Your task to perform on an android device: Show the shopping cart on bestbuy. Search for "dell alienware" on bestbuy, select the first entry, and add it to the cart. Image 0: 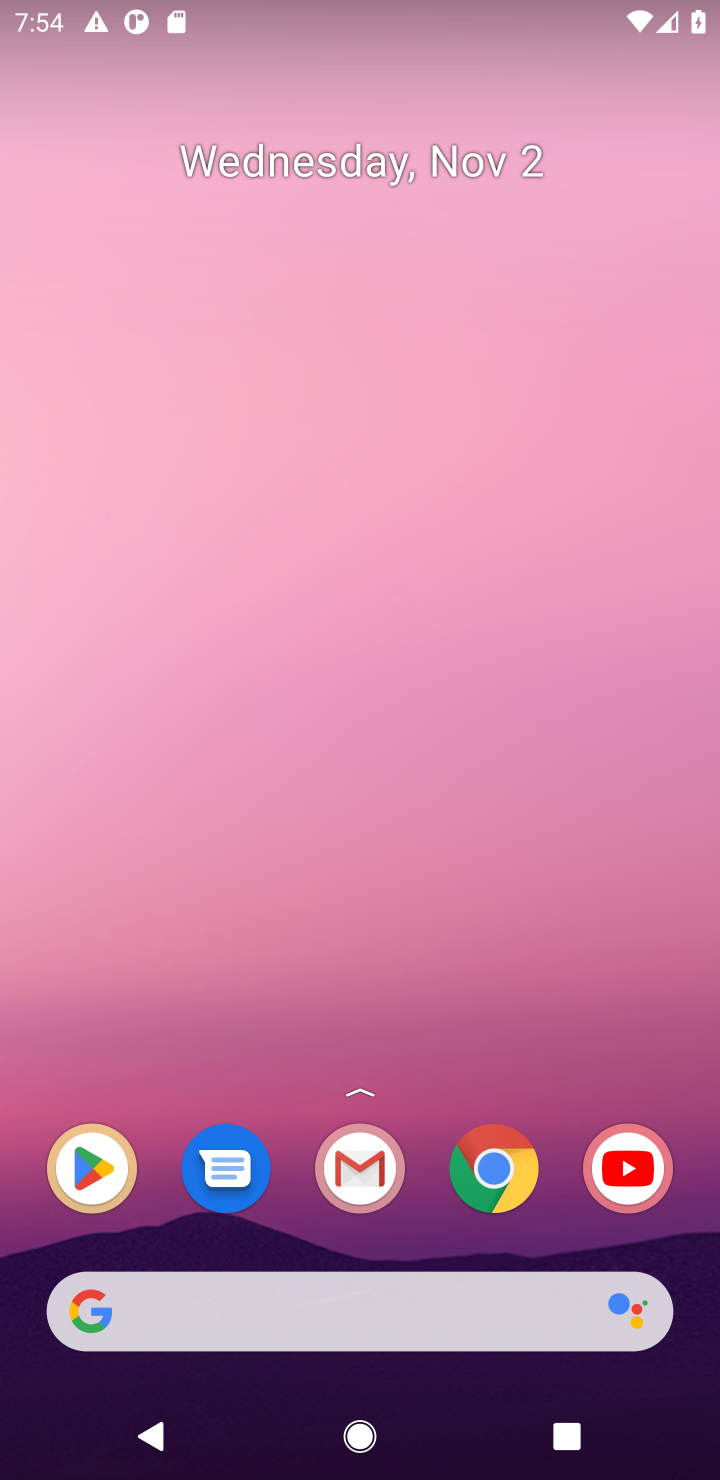
Step 0: click (498, 1167)
Your task to perform on an android device: Show the shopping cart on bestbuy. Search for "dell alienware" on bestbuy, select the first entry, and add it to the cart. Image 1: 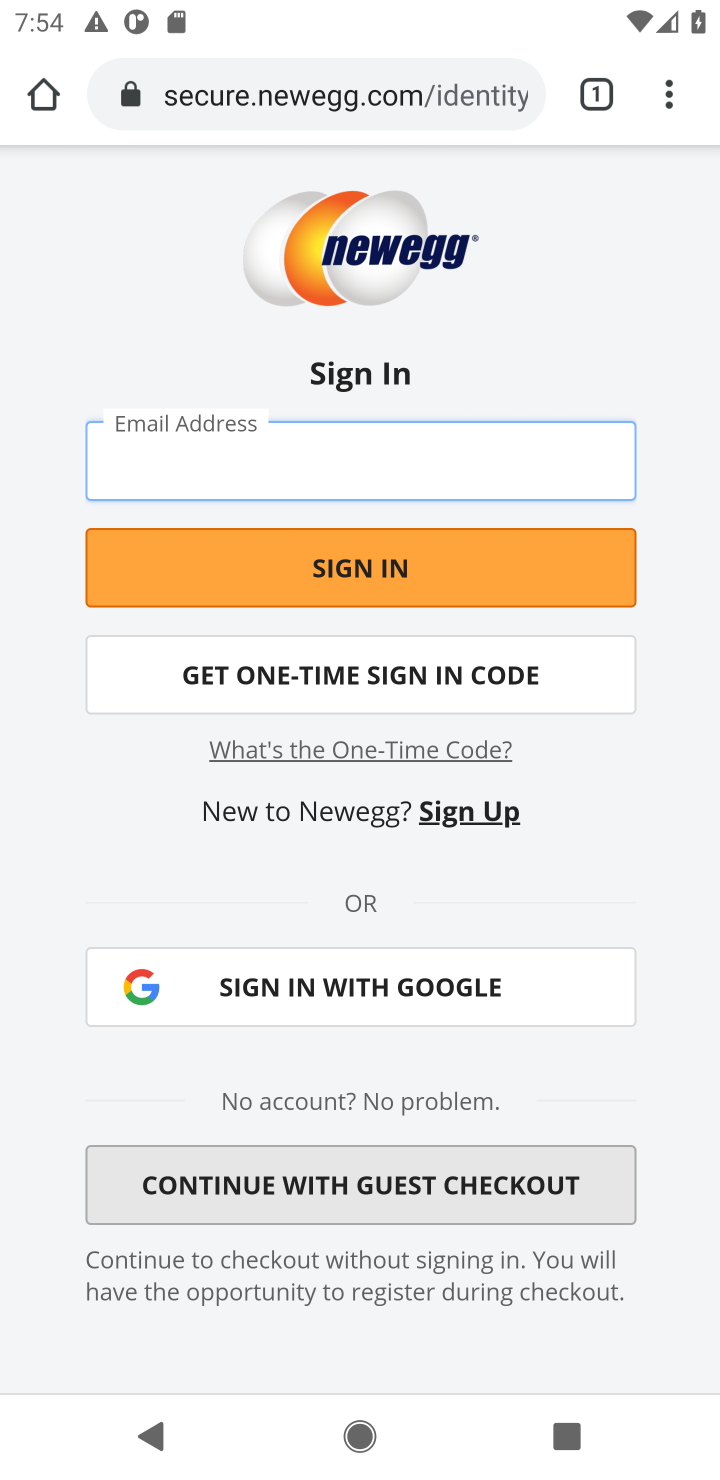
Step 1: click (450, 105)
Your task to perform on an android device: Show the shopping cart on bestbuy. Search for "dell alienware" on bestbuy, select the first entry, and add it to the cart. Image 2: 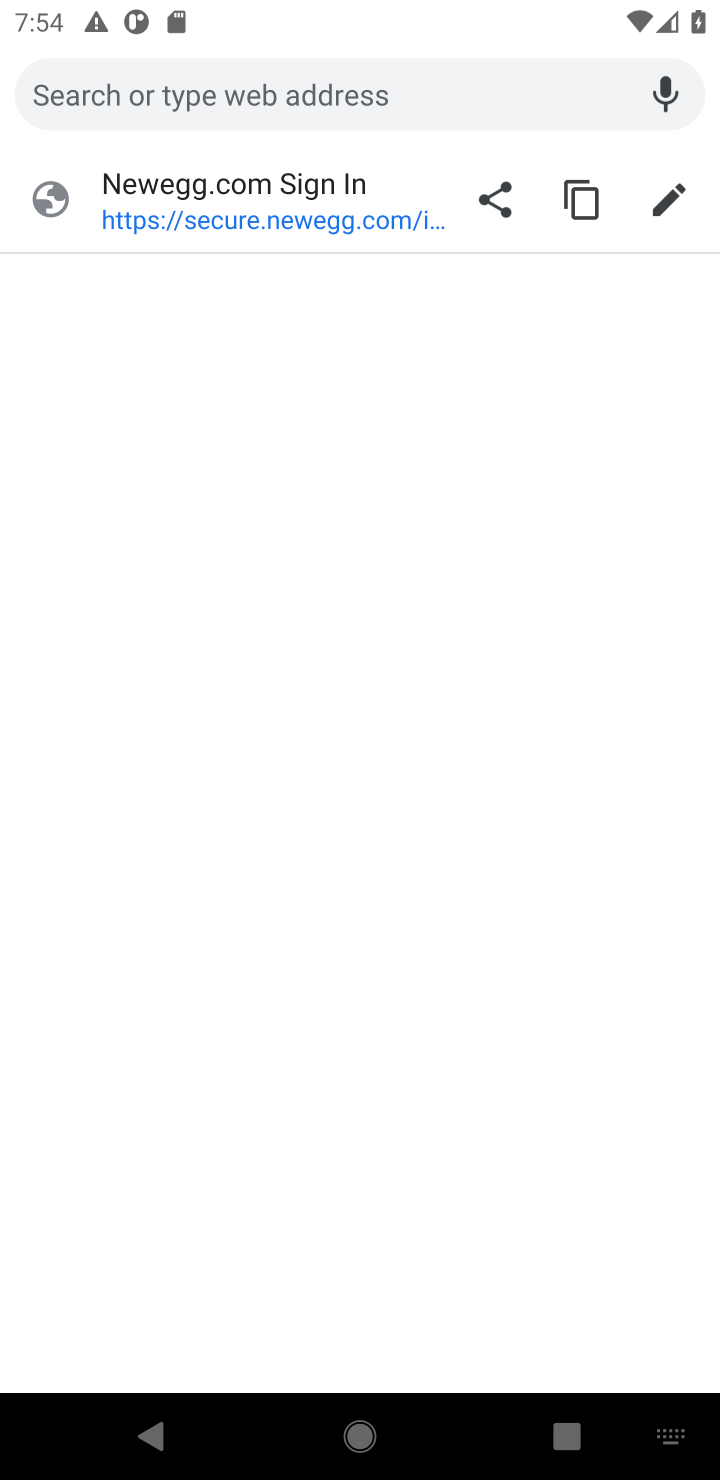
Step 2: type "bestbuy"
Your task to perform on an android device: Show the shopping cart on bestbuy. Search for "dell alienware" on bestbuy, select the first entry, and add it to the cart. Image 3: 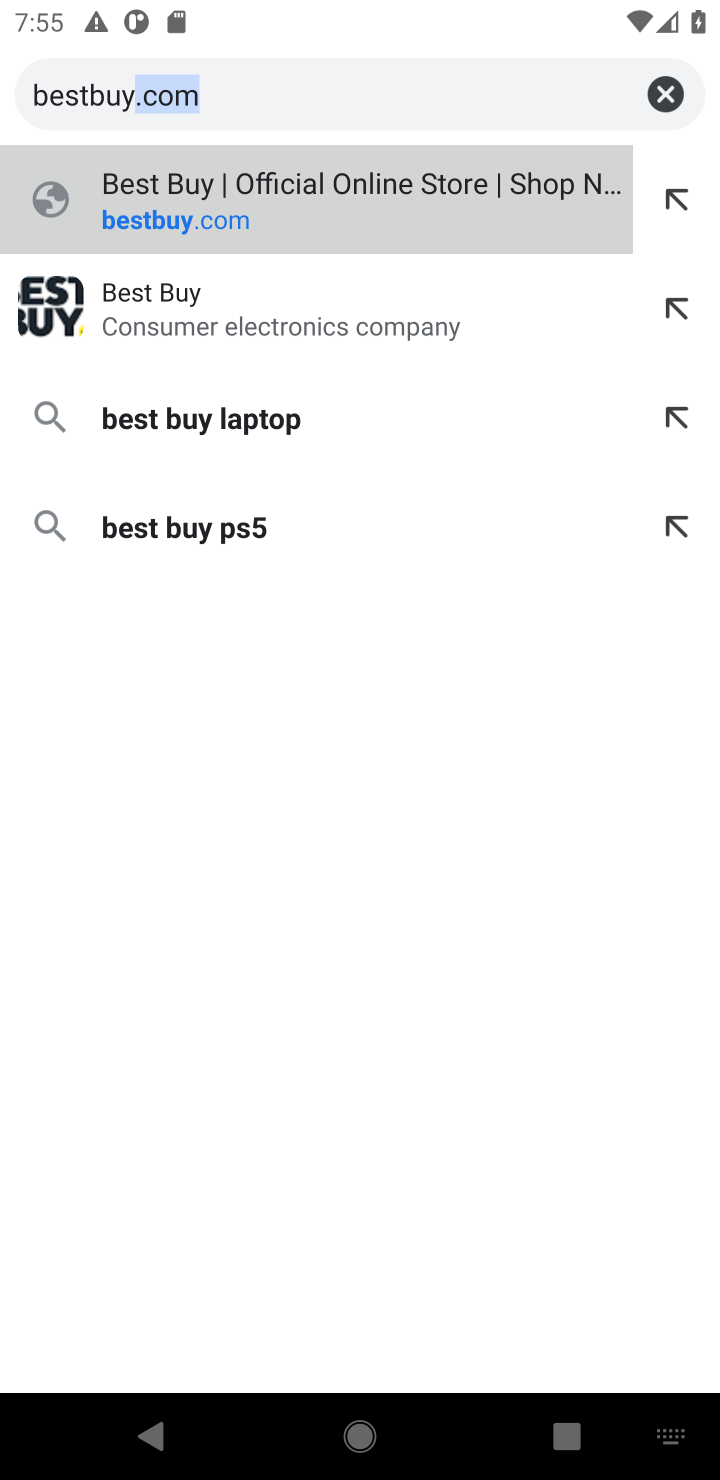
Step 3: click (175, 299)
Your task to perform on an android device: Show the shopping cart on bestbuy. Search for "dell alienware" on bestbuy, select the first entry, and add it to the cart. Image 4: 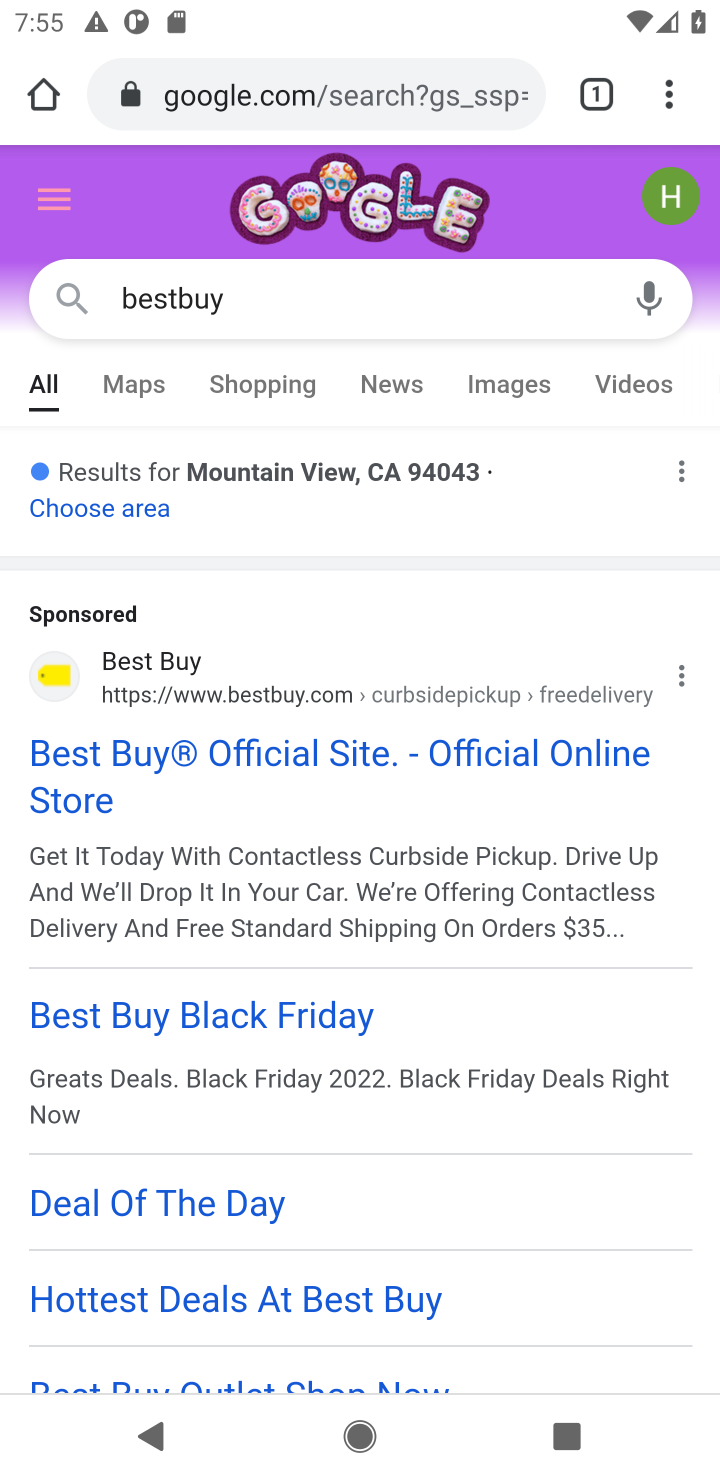
Step 4: drag from (307, 1139) to (387, 643)
Your task to perform on an android device: Show the shopping cart on bestbuy. Search for "dell alienware" on bestbuy, select the first entry, and add it to the cart. Image 5: 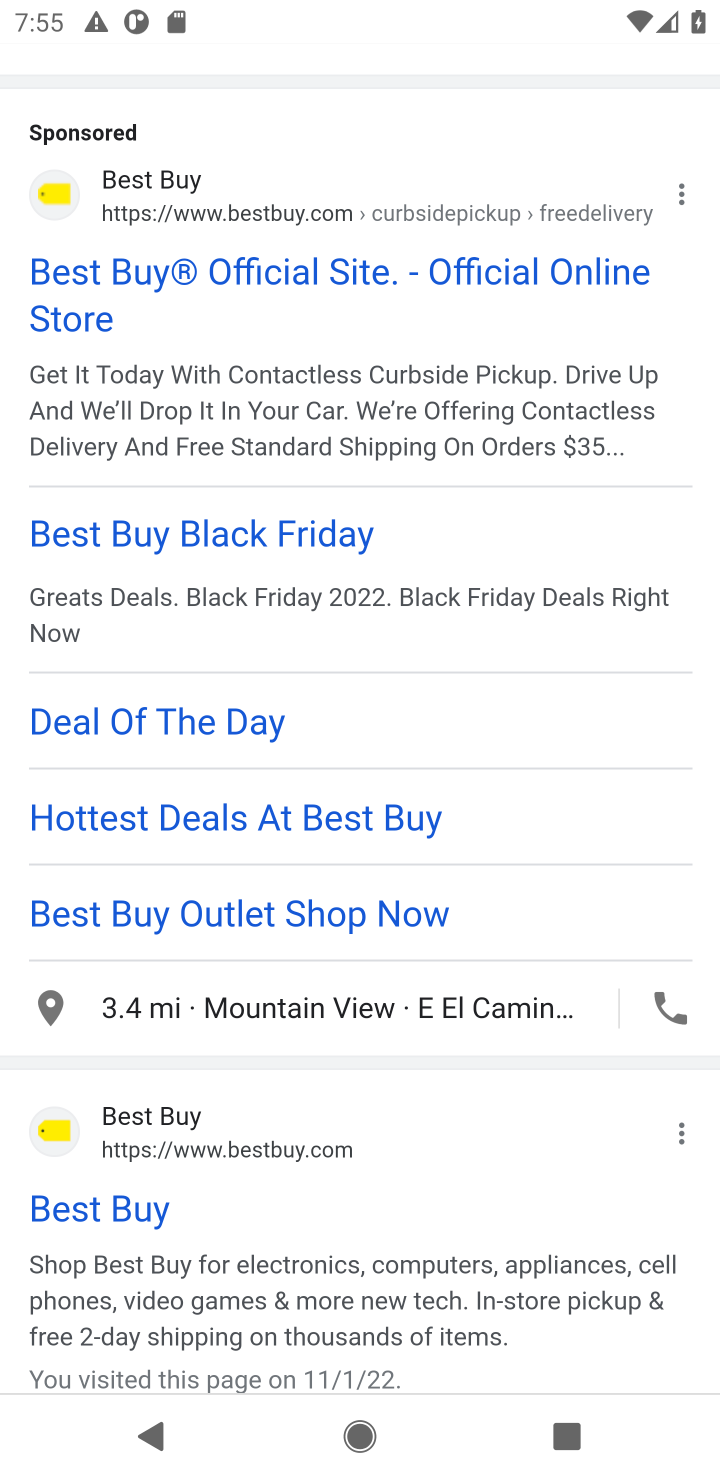
Step 5: click (167, 1208)
Your task to perform on an android device: Show the shopping cart on bestbuy. Search for "dell alienware" on bestbuy, select the first entry, and add it to the cart. Image 6: 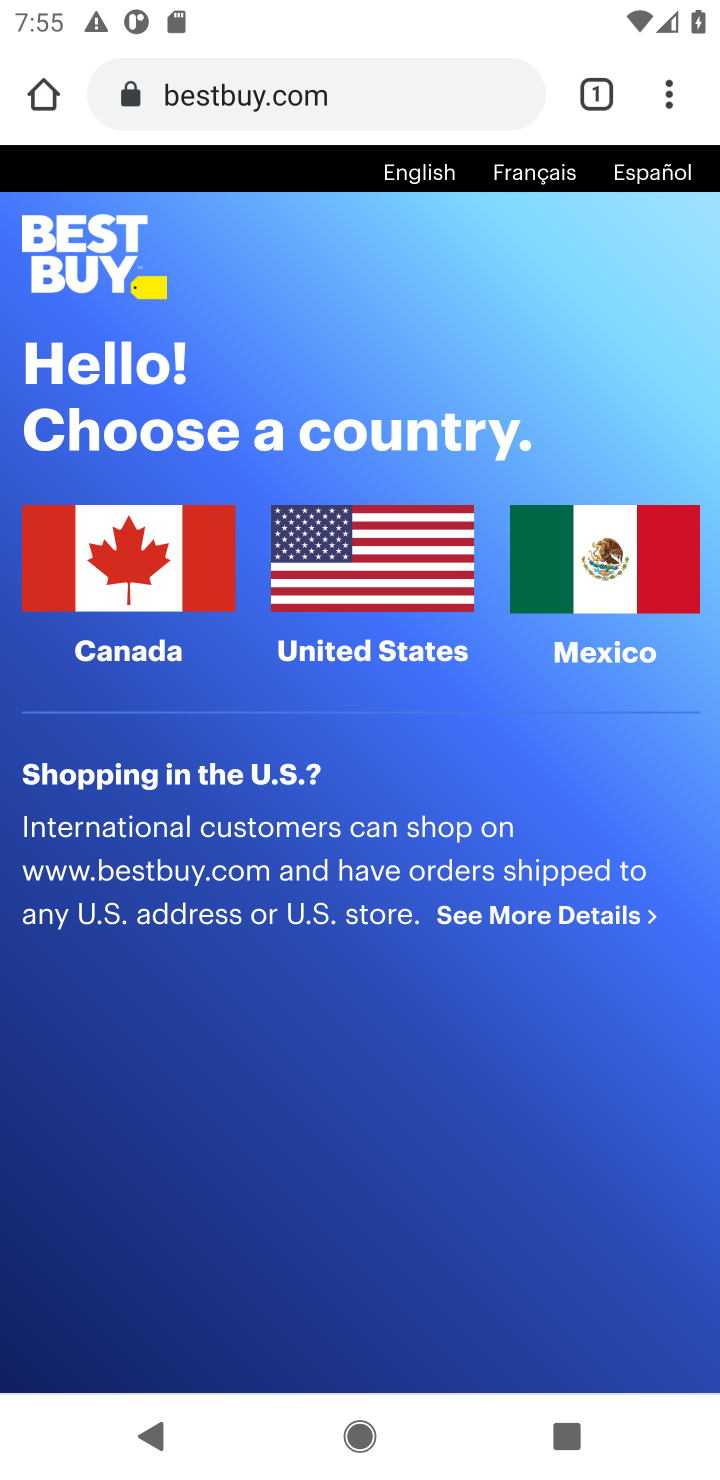
Step 6: click (354, 579)
Your task to perform on an android device: Show the shopping cart on bestbuy. Search for "dell alienware" on bestbuy, select the first entry, and add it to the cart. Image 7: 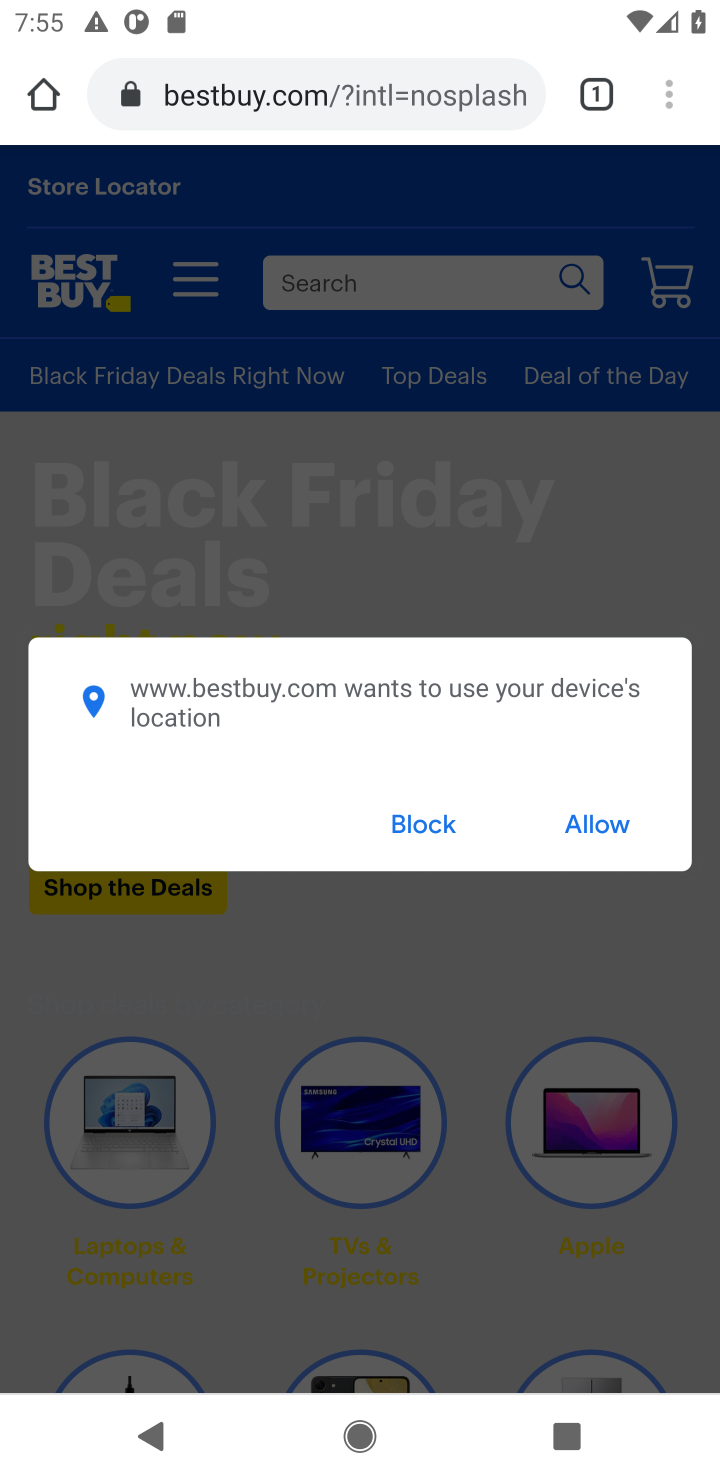
Step 7: click (589, 818)
Your task to perform on an android device: Show the shopping cart on bestbuy. Search for "dell alienware" on bestbuy, select the first entry, and add it to the cart. Image 8: 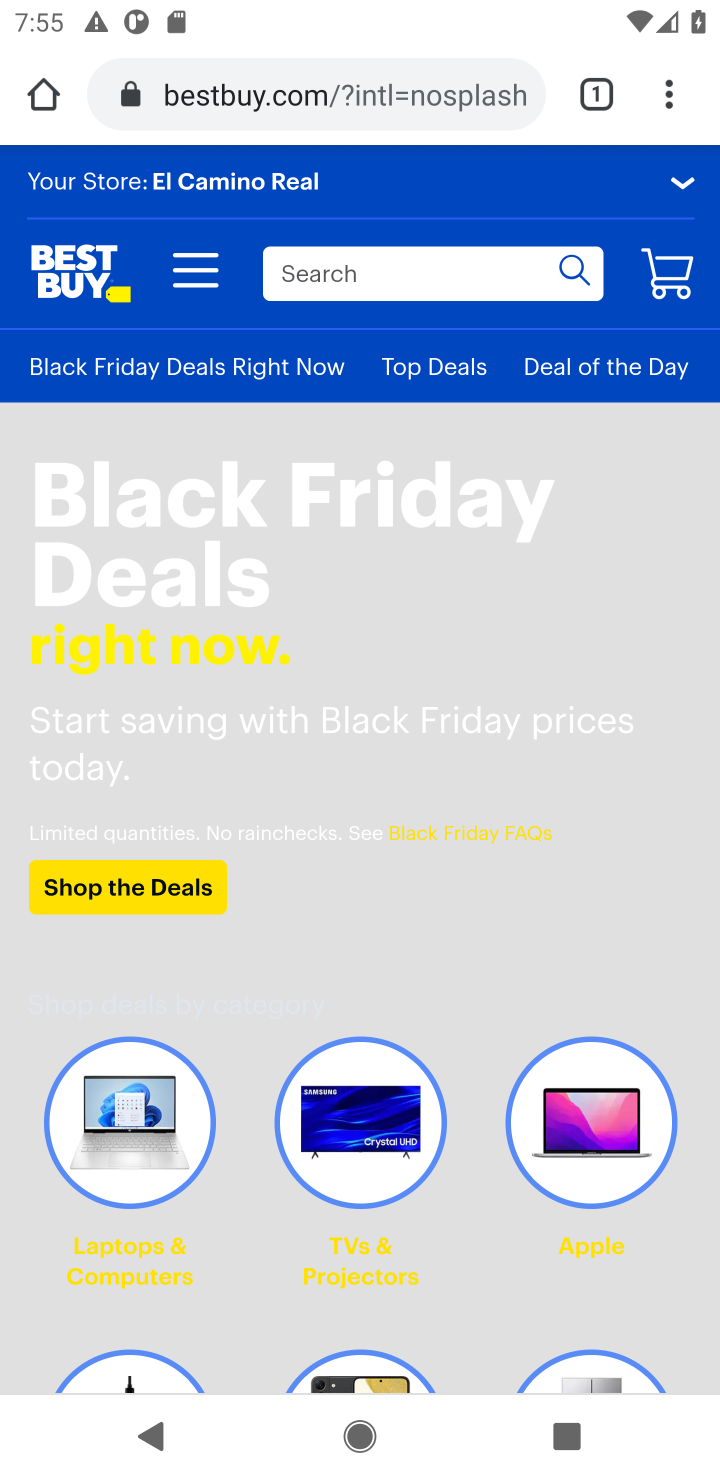
Step 8: click (668, 279)
Your task to perform on an android device: Show the shopping cart on bestbuy. Search for "dell alienware" on bestbuy, select the first entry, and add it to the cart. Image 9: 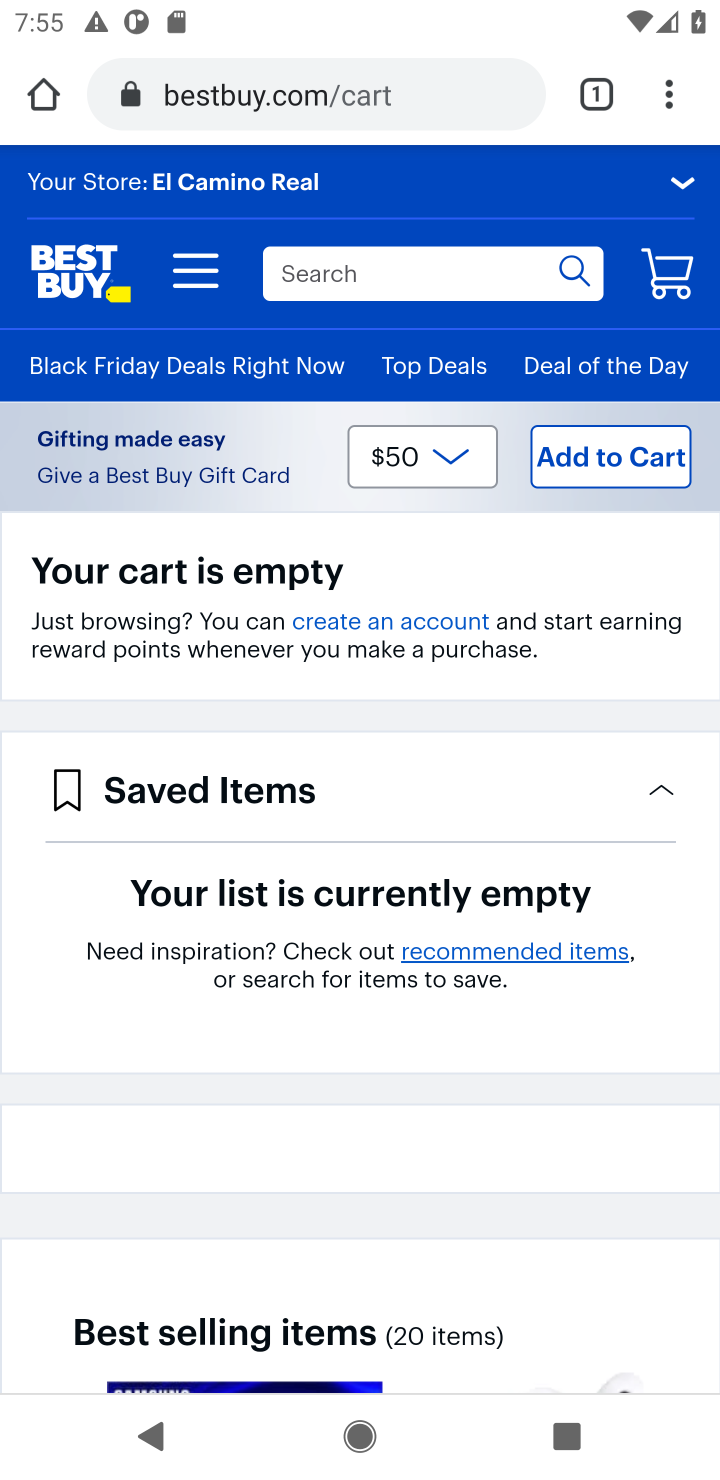
Step 9: click (375, 270)
Your task to perform on an android device: Show the shopping cart on bestbuy. Search for "dell alienware" on bestbuy, select the first entry, and add it to the cart. Image 10: 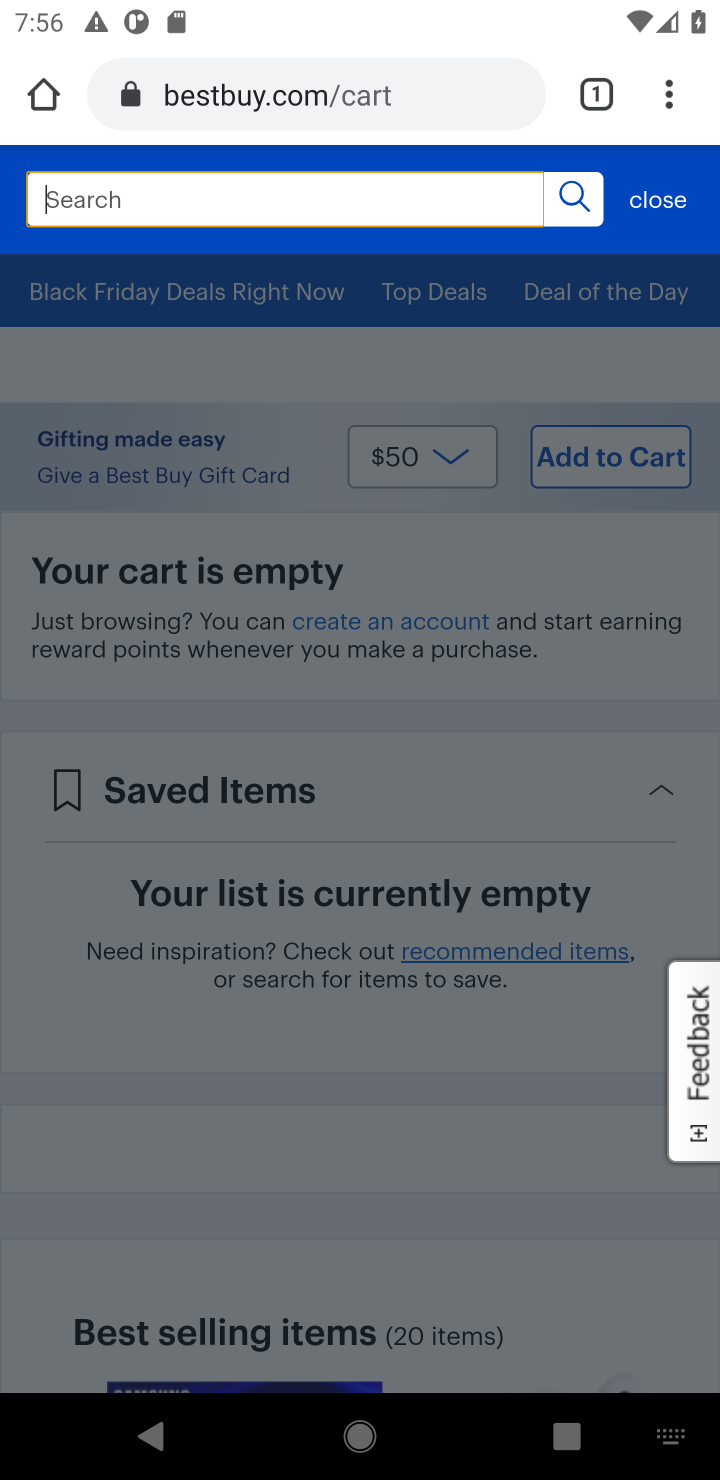
Step 10: type "dell alienware"
Your task to perform on an android device: Show the shopping cart on bestbuy. Search for "dell alienware" on bestbuy, select the first entry, and add it to the cart. Image 11: 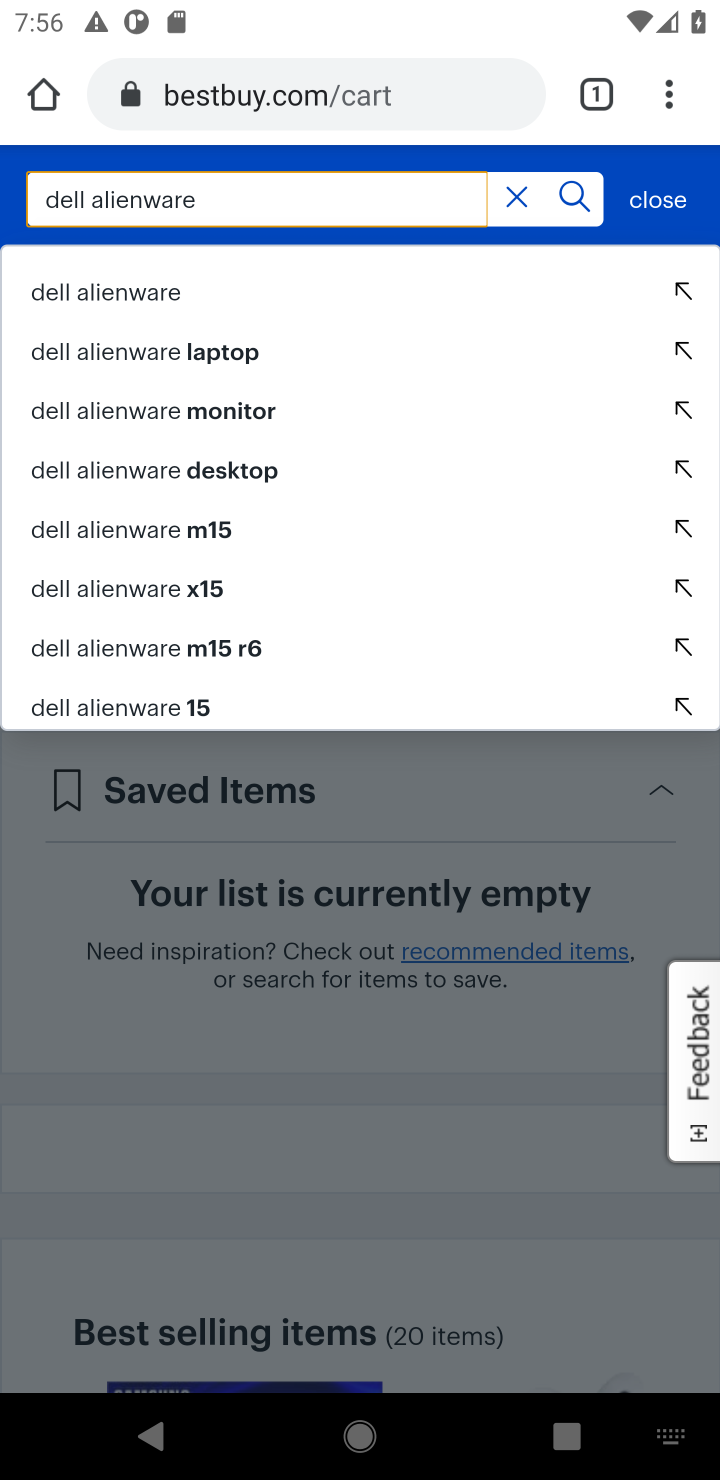
Step 11: click (573, 198)
Your task to perform on an android device: Show the shopping cart on bestbuy. Search for "dell alienware" on bestbuy, select the first entry, and add it to the cart. Image 12: 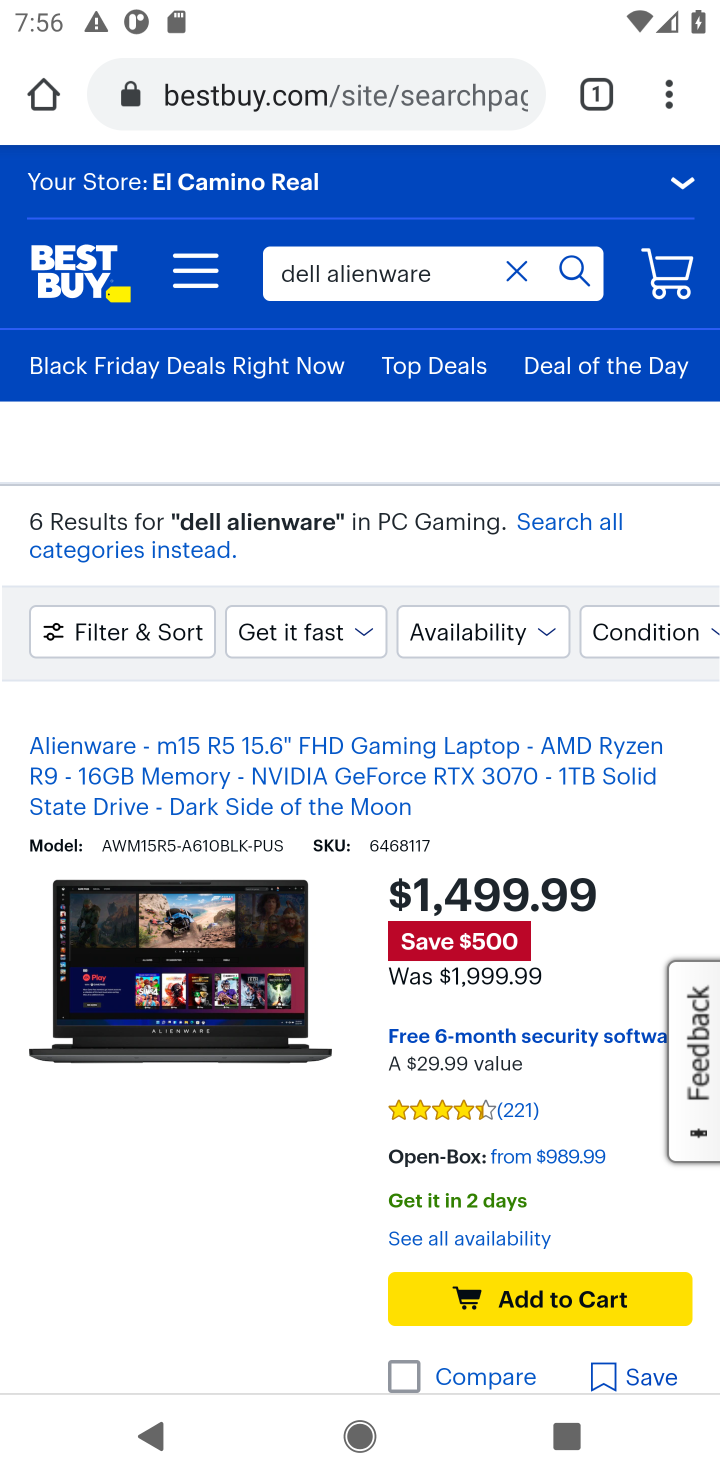
Step 12: click (531, 1298)
Your task to perform on an android device: Show the shopping cart on bestbuy. Search for "dell alienware" on bestbuy, select the first entry, and add it to the cart. Image 13: 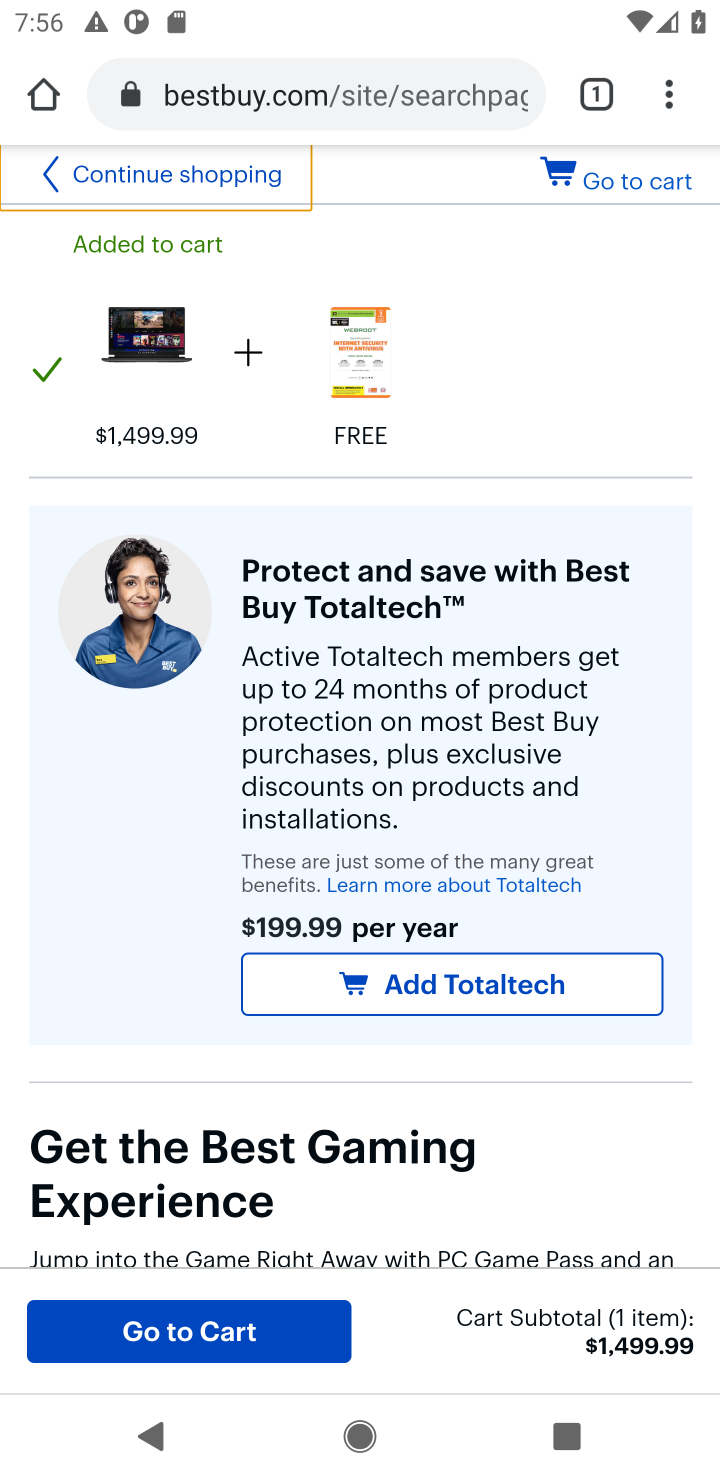
Step 13: click (208, 1332)
Your task to perform on an android device: Show the shopping cart on bestbuy. Search for "dell alienware" on bestbuy, select the first entry, and add it to the cart. Image 14: 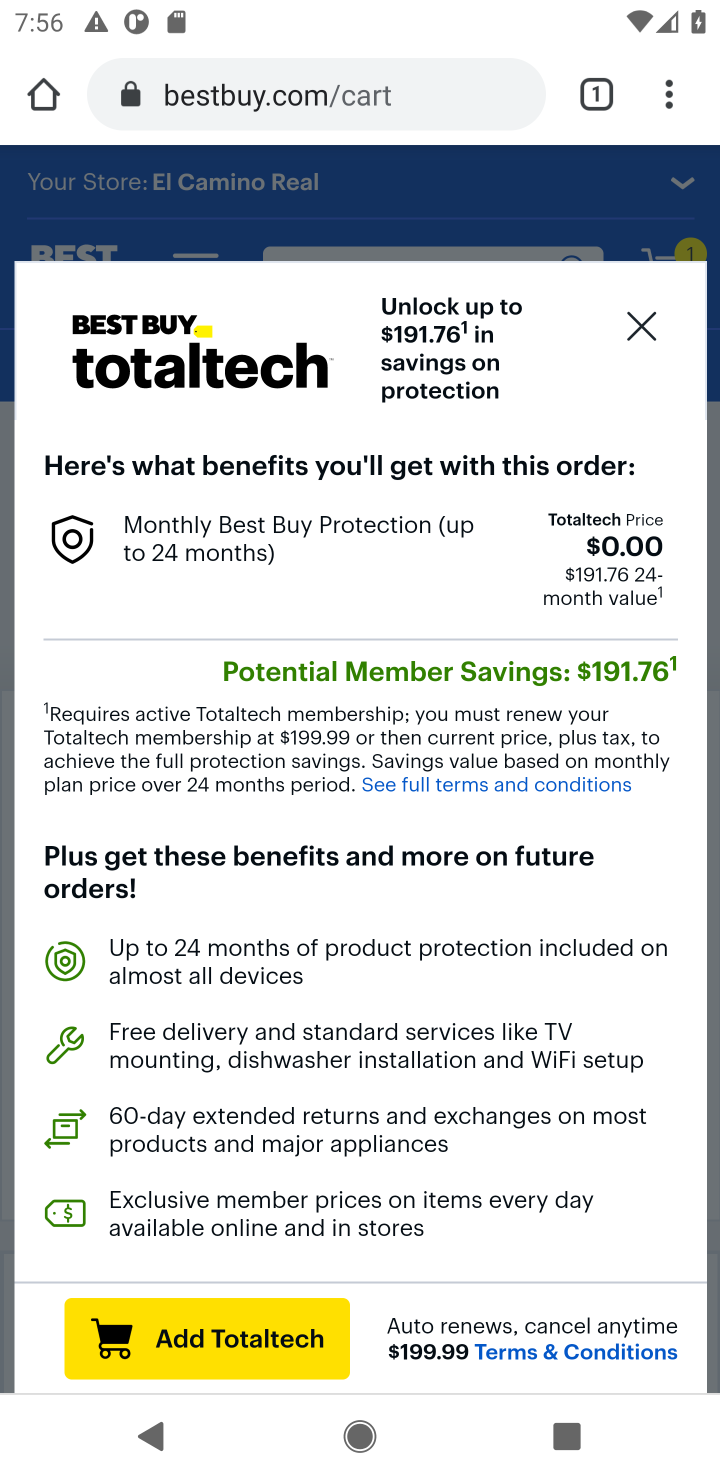
Step 14: click (637, 324)
Your task to perform on an android device: Show the shopping cart on bestbuy. Search for "dell alienware" on bestbuy, select the first entry, and add it to the cart. Image 15: 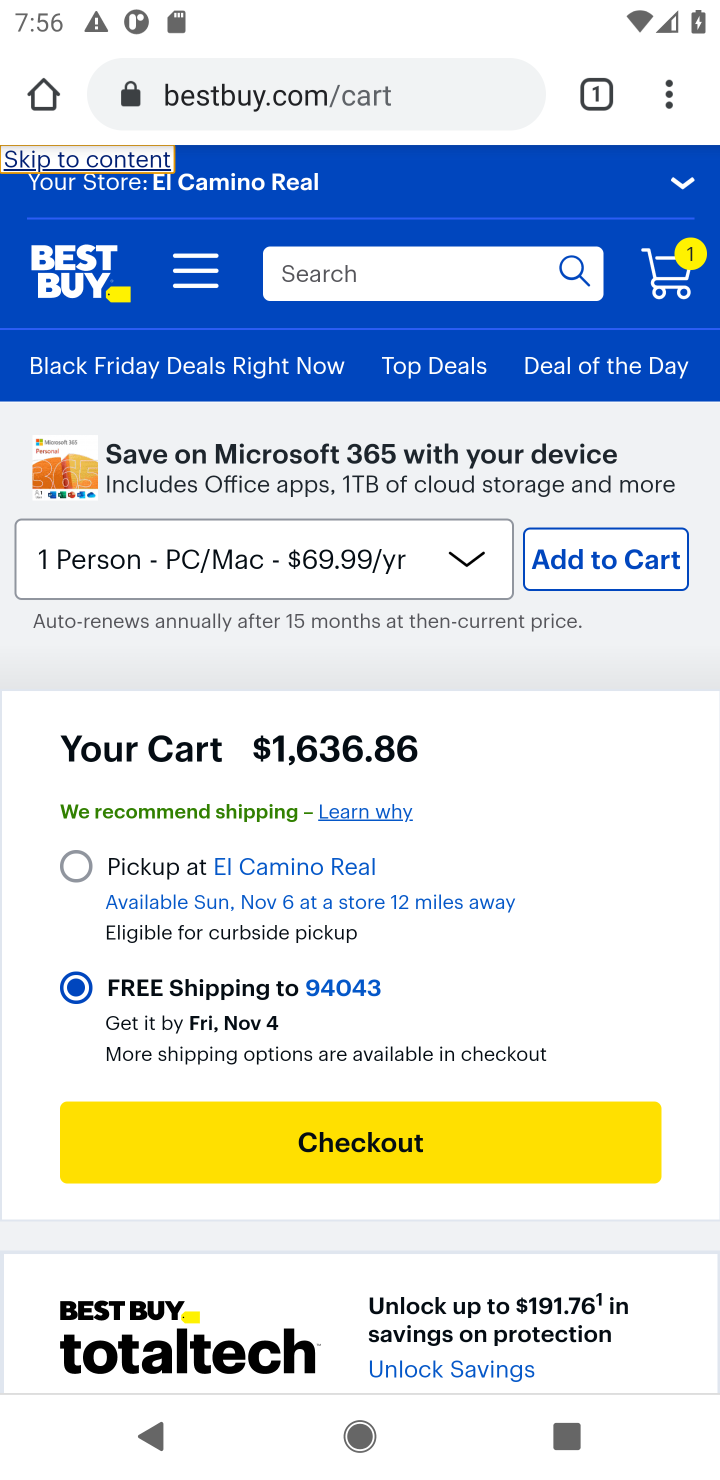
Step 15: task complete